Your task to perform on an android device: toggle javascript in the chrome app Image 0: 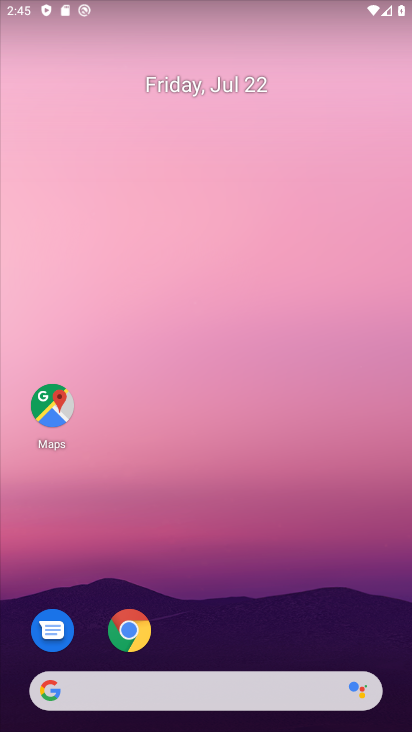
Step 0: click (118, 627)
Your task to perform on an android device: toggle javascript in the chrome app Image 1: 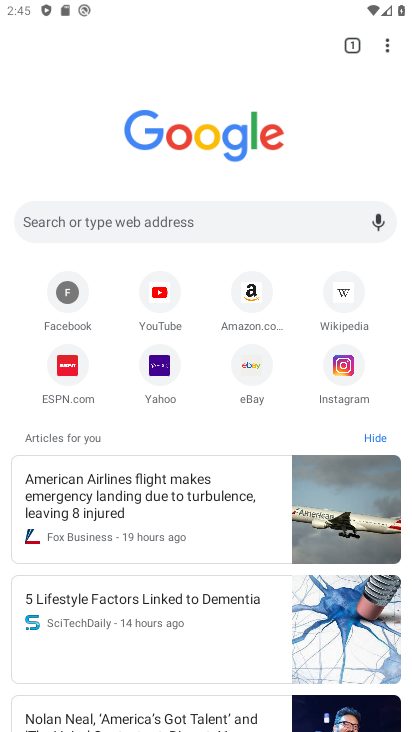
Step 1: click (388, 50)
Your task to perform on an android device: toggle javascript in the chrome app Image 2: 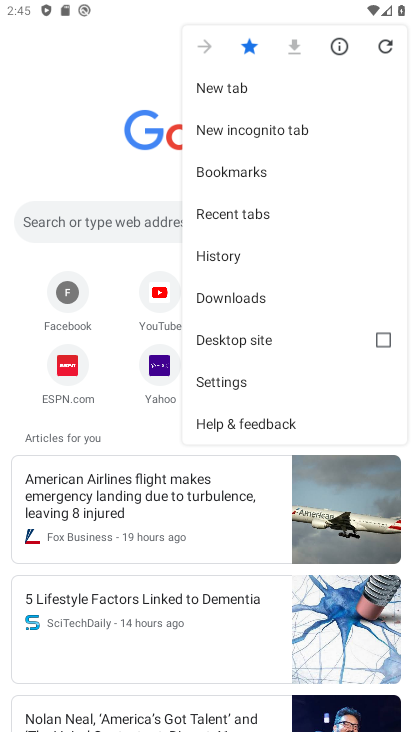
Step 2: click (233, 379)
Your task to perform on an android device: toggle javascript in the chrome app Image 3: 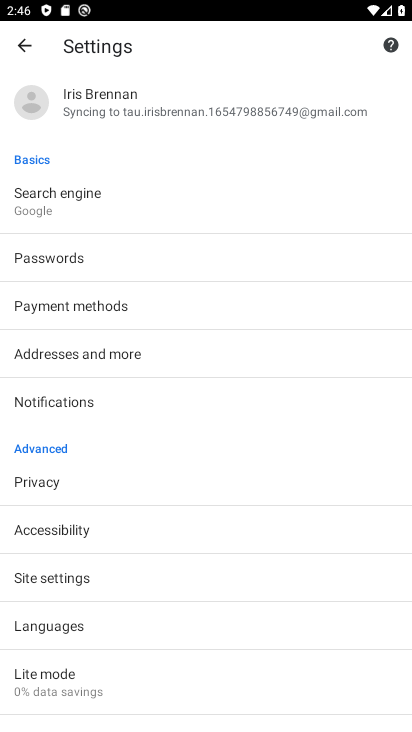
Step 3: click (64, 574)
Your task to perform on an android device: toggle javascript in the chrome app Image 4: 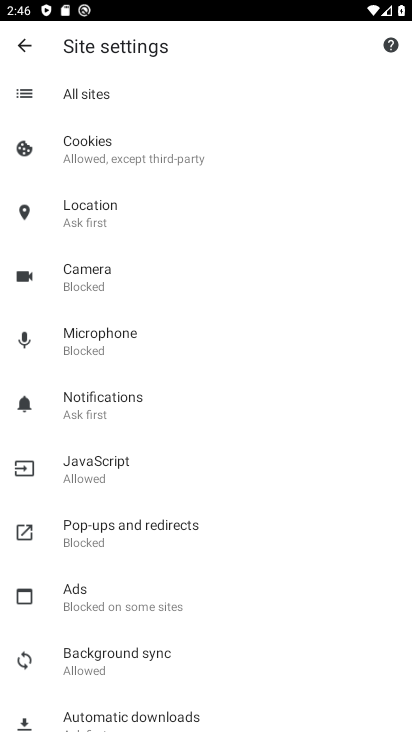
Step 4: click (81, 463)
Your task to perform on an android device: toggle javascript in the chrome app Image 5: 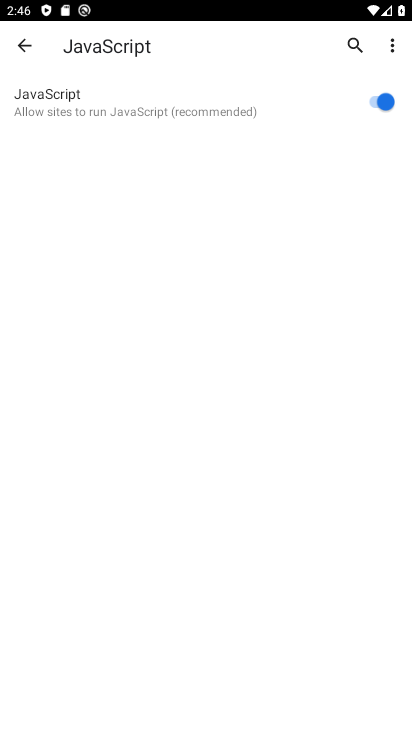
Step 5: task complete